Your task to perform on an android device: Do I have any events today? Image 0: 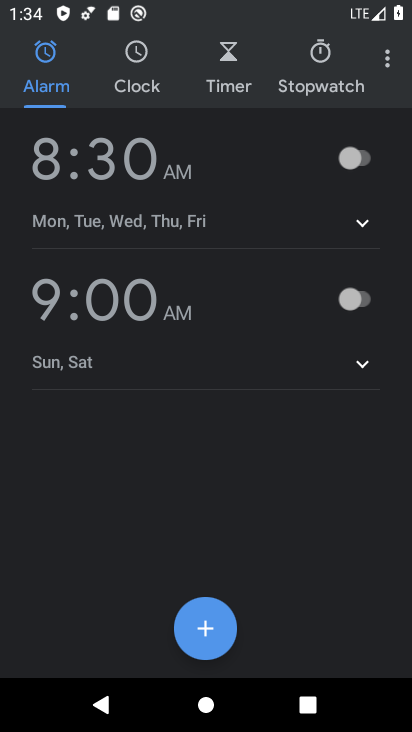
Step 0: press home button
Your task to perform on an android device: Do I have any events today? Image 1: 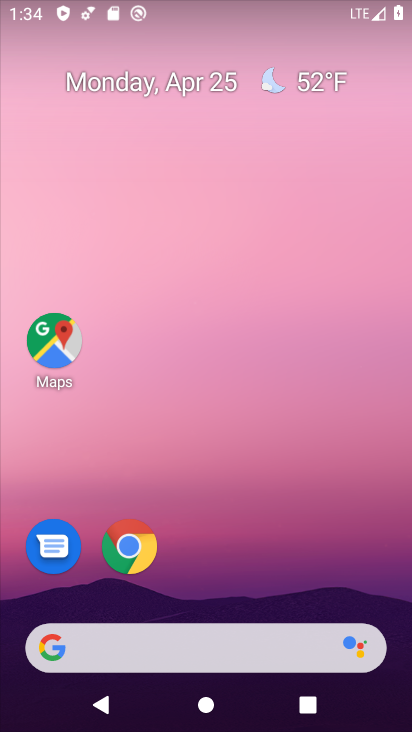
Step 1: drag from (183, 633) to (192, 230)
Your task to perform on an android device: Do I have any events today? Image 2: 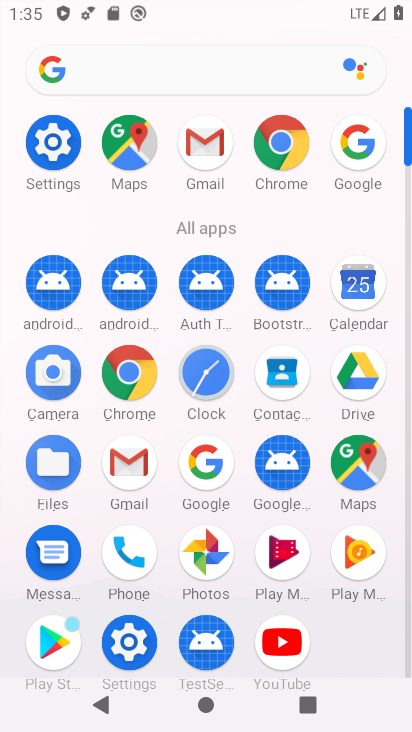
Step 2: click (344, 283)
Your task to perform on an android device: Do I have any events today? Image 3: 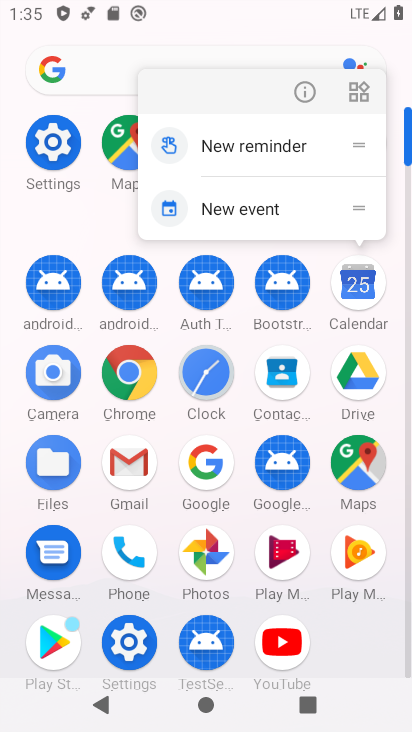
Step 3: click (366, 284)
Your task to perform on an android device: Do I have any events today? Image 4: 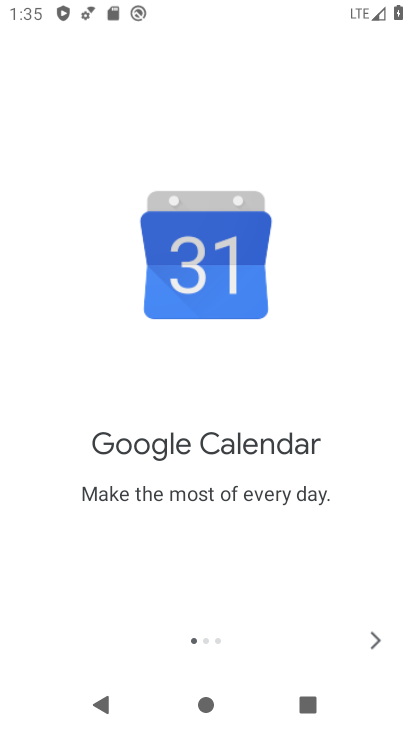
Step 4: click (368, 649)
Your task to perform on an android device: Do I have any events today? Image 5: 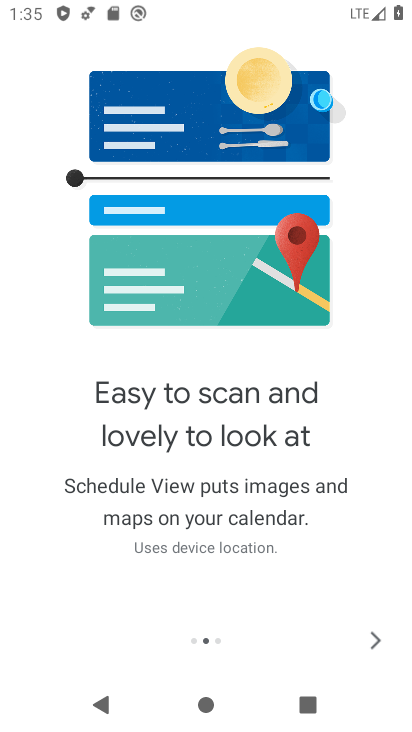
Step 5: click (368, 649)
Your task to perform on an android device: Do I have any events today? Image 6: 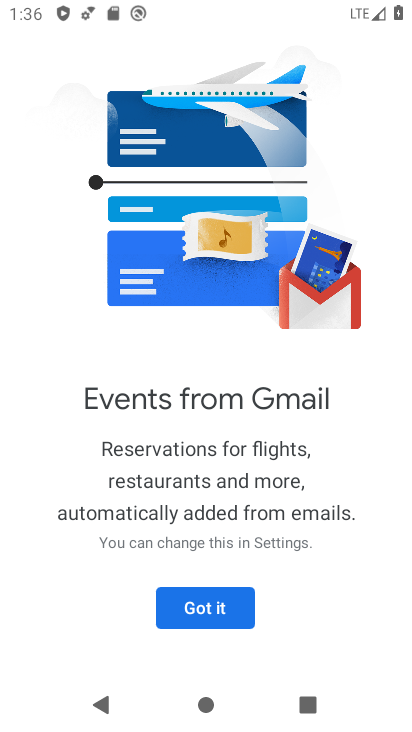
Step 6: click (216, 602)
Your task to perform on an android device: Do I have any events today? Image 7: 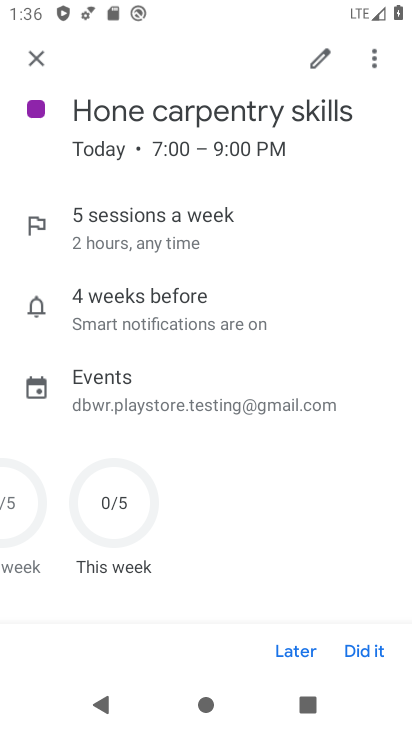
Step 7: task complete